Your task to perform on an android device: toggle notification dots Image 0: 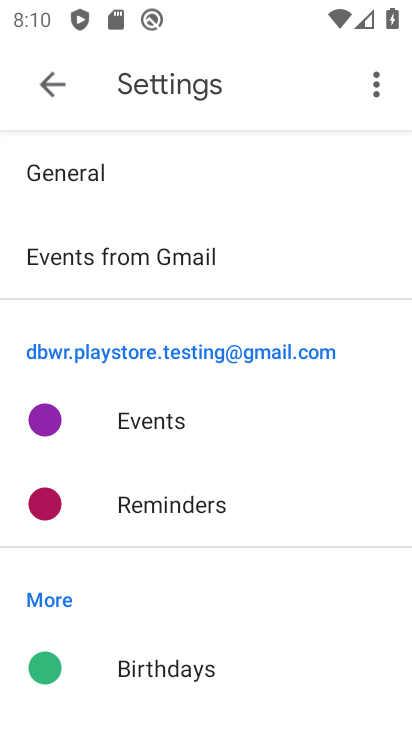
Step 0: press home button
Your task to perform on an android device: toggle notification dots Image 1: 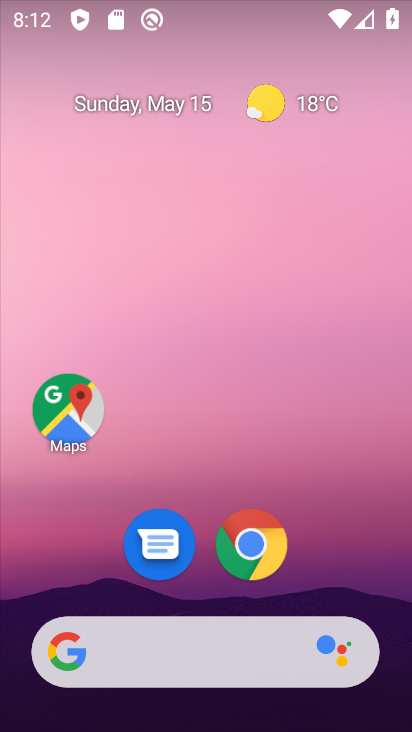
Step 1: drag from (338, 515) to (360, 39)
Your task to perform on an android device: toggle notification dots Image 2: 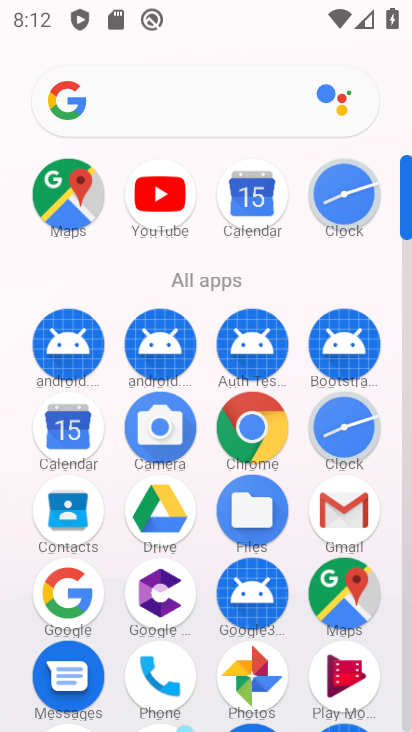
Step 2: drag from (315, 571) to (293, 251)
Your task to perform on an android device: toggle notification dots Image 3: 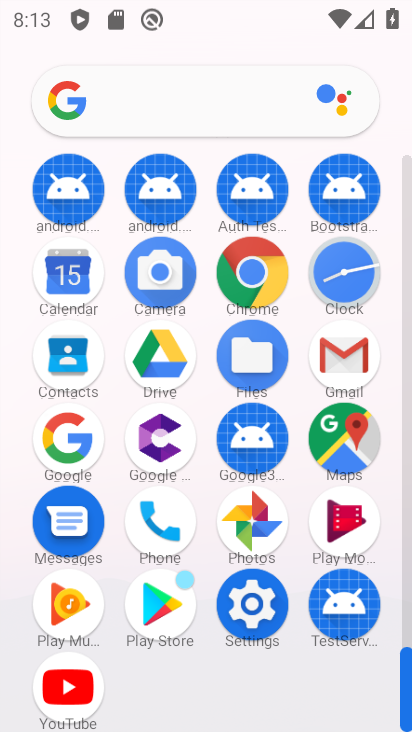
Step 3: click (237, 619)
Your task to perform on an android device: toggle notification dots Image 4: 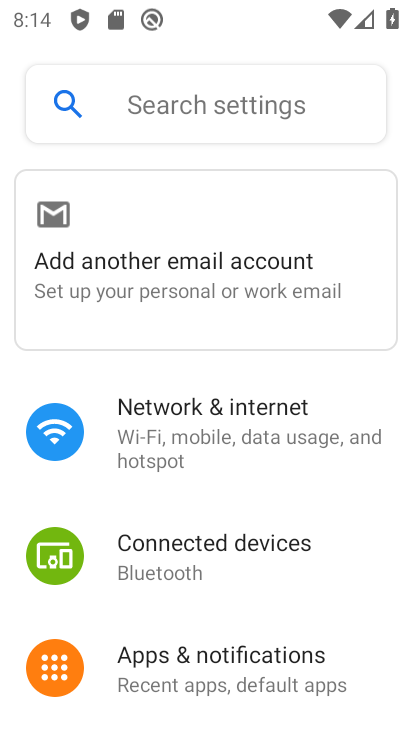
Step 4: drag from (191, 618) to (278, 186)
Your task to perform on an android device: toggle notification dots Image 5: 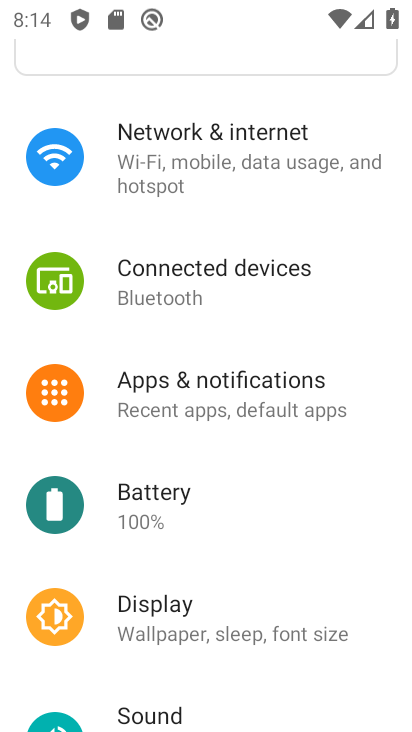
Step 5: click (227, 411)
Your task to perform on an android device: toggle notification dots Image 6: 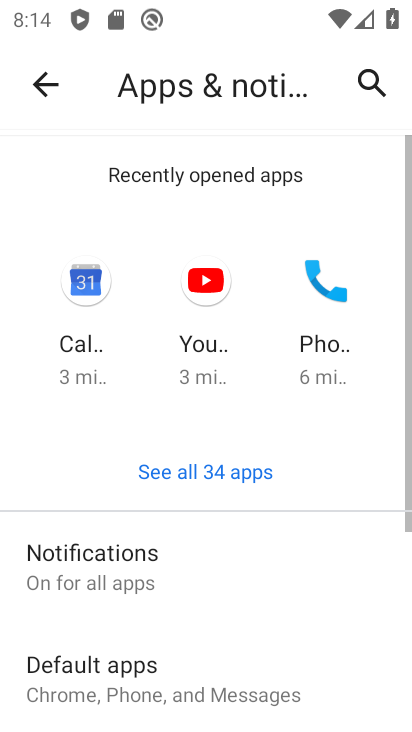
Step 6: click (109, 563)
Your task to perform on an android device: toggle notification dots Image 7: 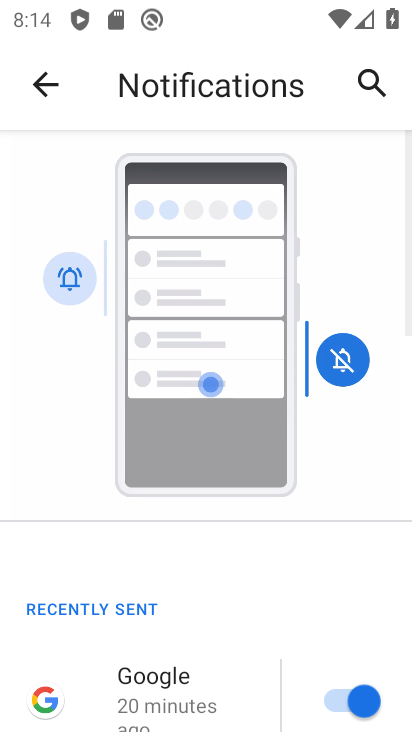
Step 7: drag from (217, 607) to (260, 77)
Your task to perform on an android device: toggle notification dots Image 8: 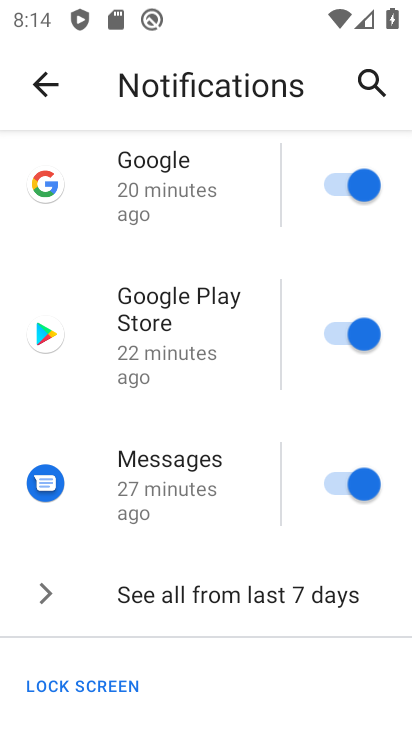
Step 8: drag from (221, 526) to (271, 12)
Your task to perform on an android device: toggle notification dots Image 9: 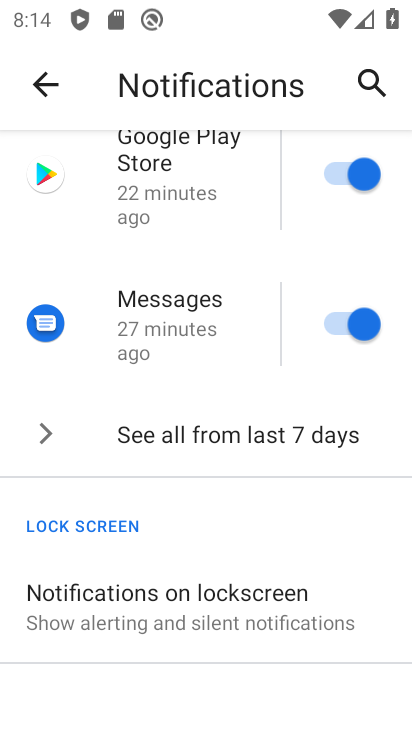
Step 9: drag from (176, 606) to (224, 87)
Your task to perform on an android device: toggle notification dots Image 10: 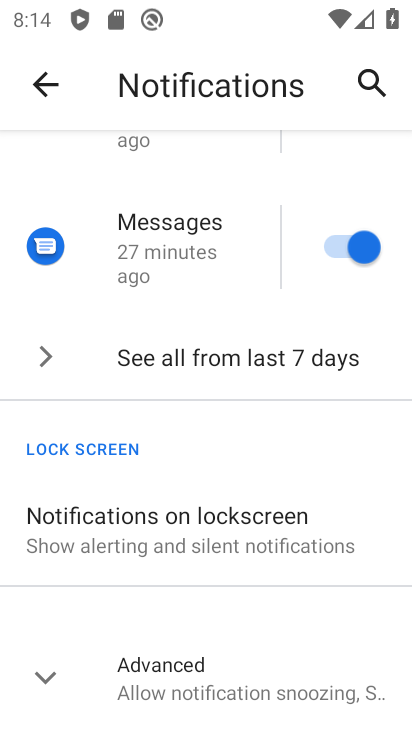
Step 10: click (165, 663)
Your task to perform on an android device: toggle notification dots Image 11: 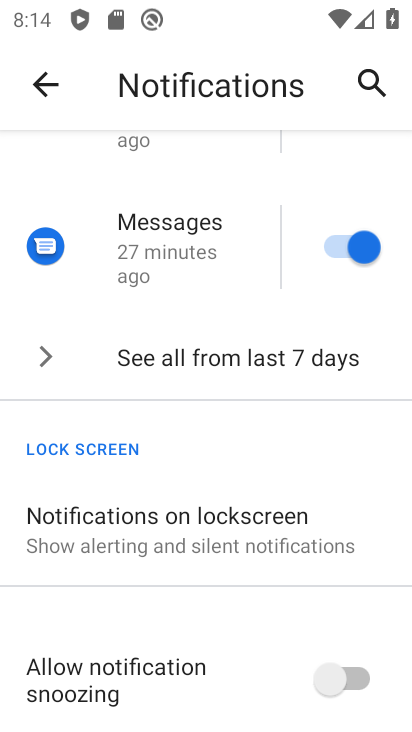
Step 11: drag from (194, 554) to (234, 40)
Your task to perform on an android device: toggle notification dots Image 12: 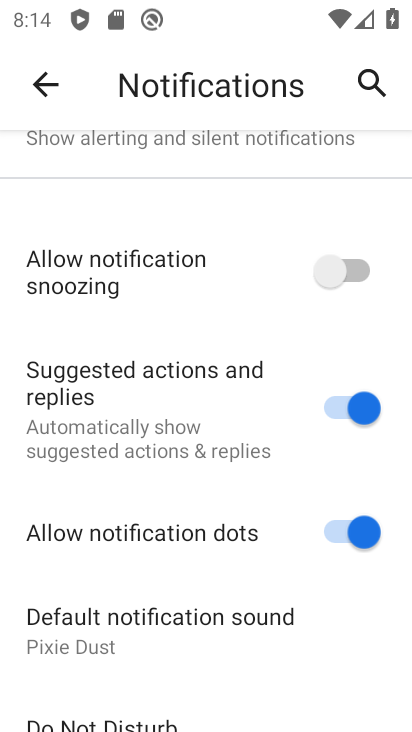
Step 12: click (342, 667)
Your task to perform on an android device: toggle notification dots Image 13: 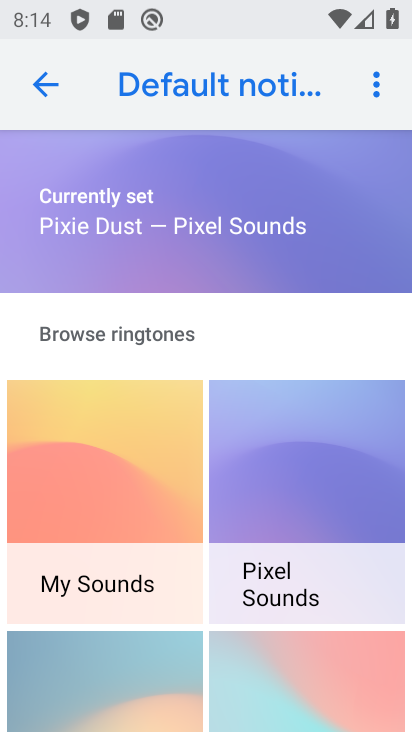
Step 13: click (59, 77)
Your task to perform on an android device: toggle notification dots Image 14: 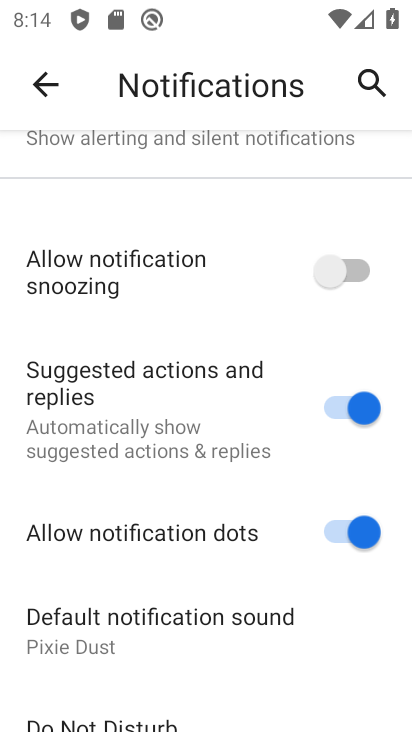
Step 14: click (345, 527)
Your task to perform on an android device: toggle notification dots Image 15: 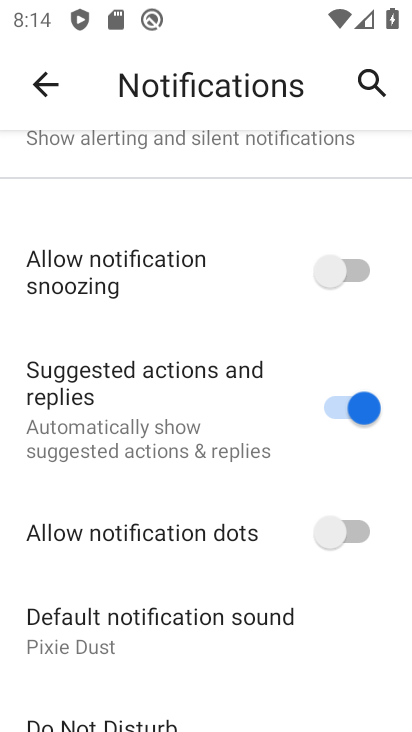
Step 15: task complete